Your task to perform on an android device: Go to location settings Image 0: 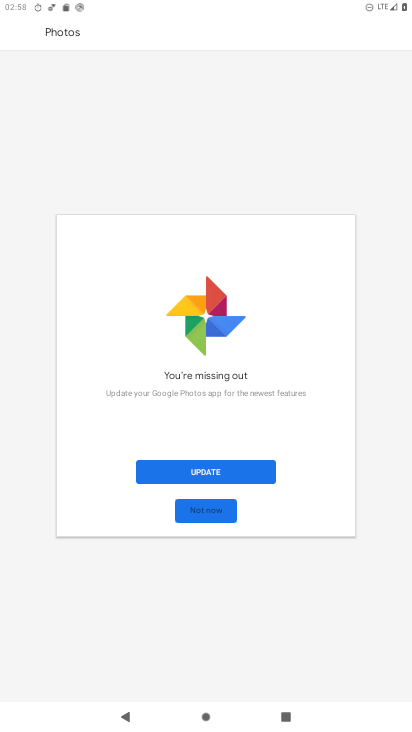
Step 0: press home button
Your task to perform on an android device: Go to location settings Image 1: 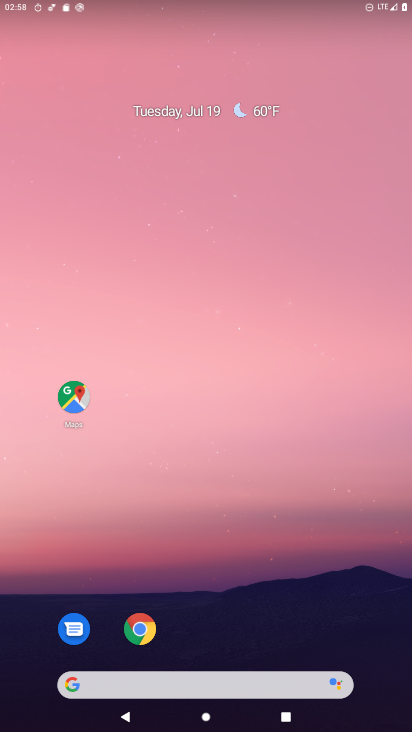
Step 1: drag from (195, 621) to (195, 197)
Your task to perform on an android device: Go to location settings Image 2: 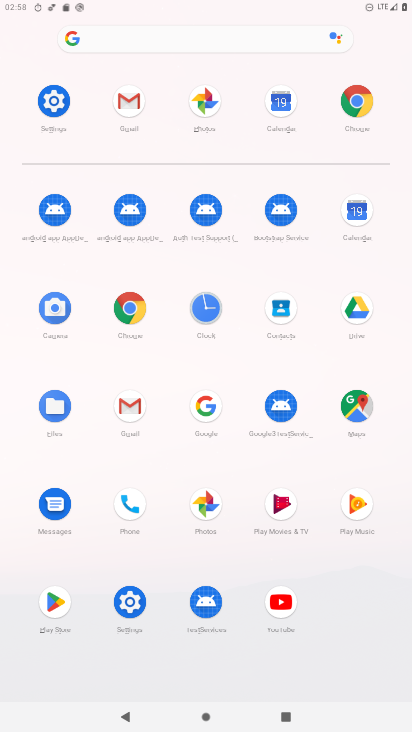
Step 2: click (55, 115)
Your task to perform on an android device: Go to location settings Image 3: 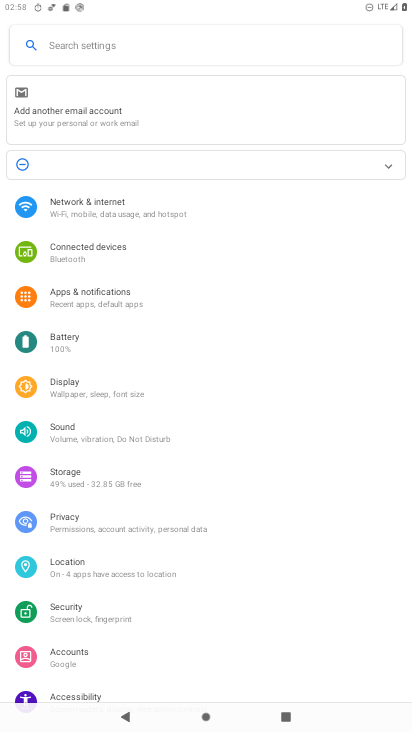
Step 3: click (101, 574)
Your task to perform on an android device: Go to location settings Image 4: 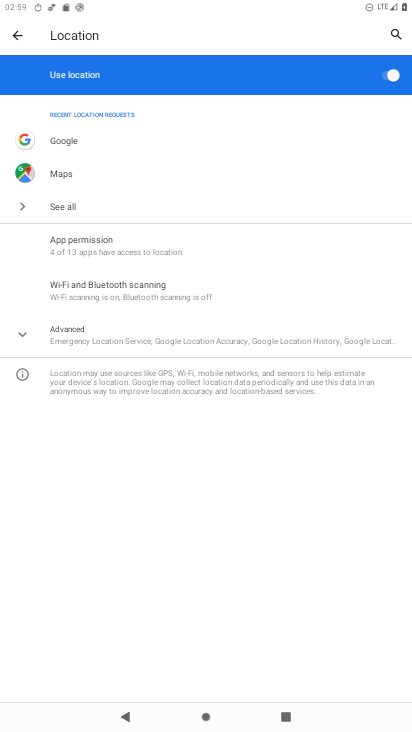
Step 4: task complete